Your task to perform on an android device: snooze an email in the gmail app Image 0: 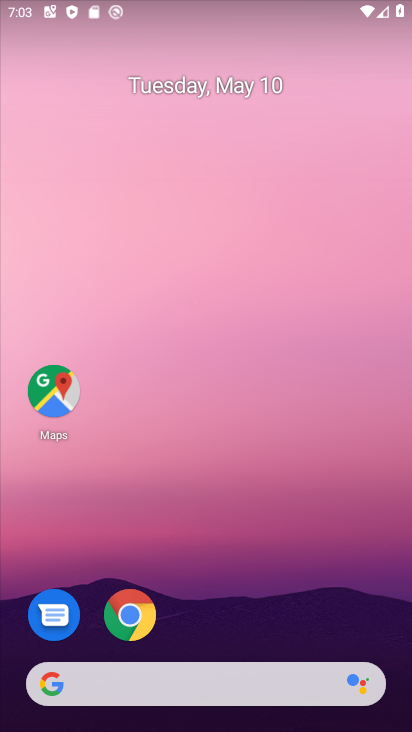
Step 0: click (241, 493)
Your task to perform on an android device: snooze an email in the gmail app Image 1: 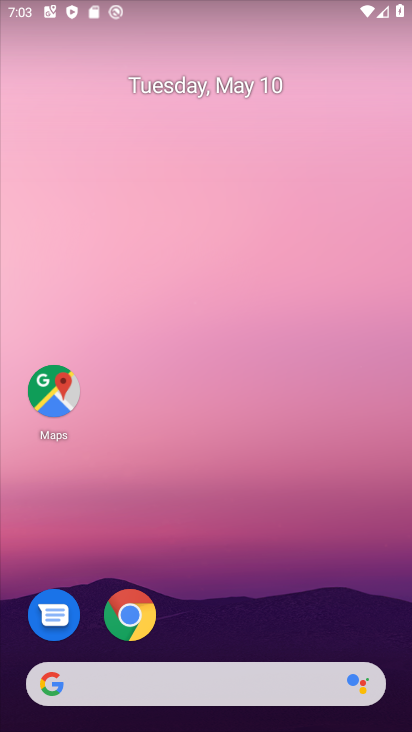
Step 1: drag from (213, 516) to (110, 84)
Your task to perform on an android device: snooze an email in the gmail app Image 2: 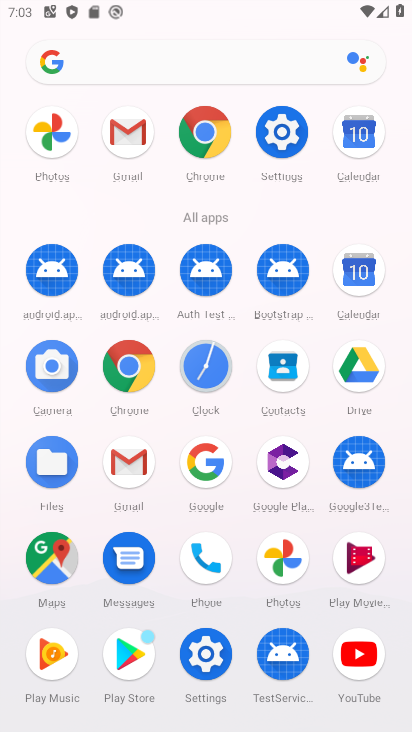
Step 2: click (121, 132)
Your task to perform on an android device: snooze an email in the gmail app Image 3: 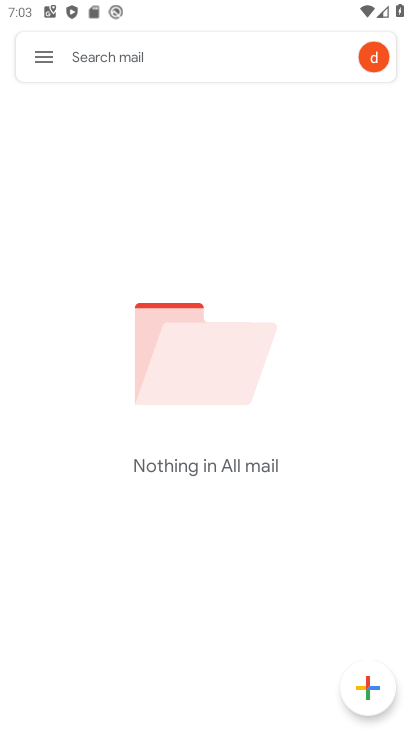
Step 3: click (41, 51)
Your task to perform on an android device: snooze an email in the gmail app Image 4: 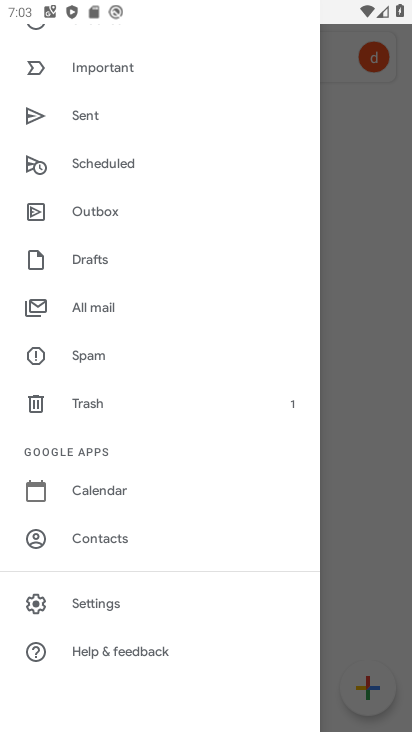
Step 4: click (83, 310)
Your task to perform on an android device: snooze an email in the gmail app Image 5: 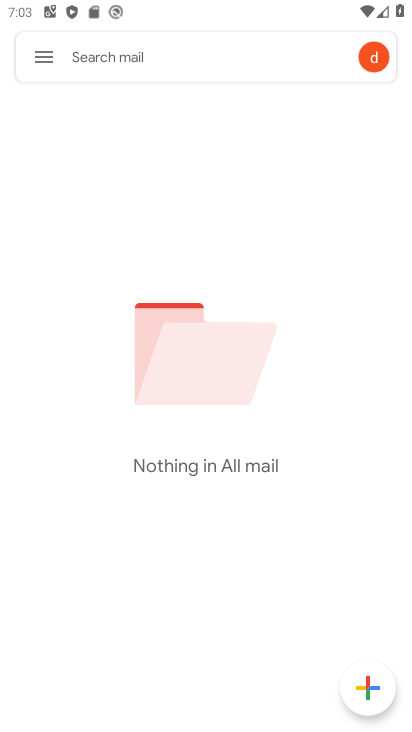
Step 5: task complete